Your task to perform on an android device: Go to location settings Image 0: 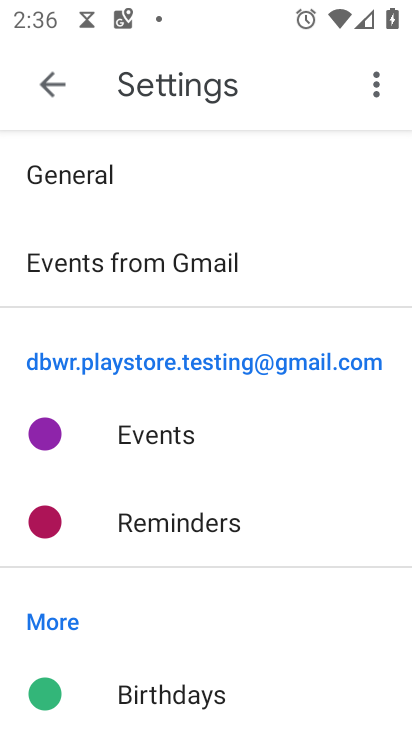
Step 0: press home button
Your task to perform on an android device: Go to location settings Image 1: 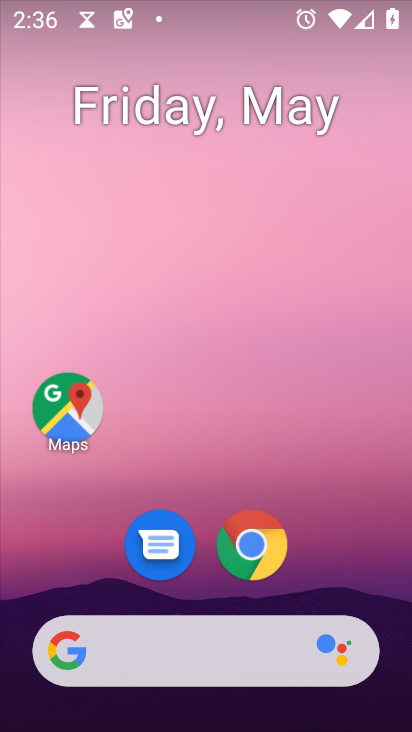
Step 1: drag from (345, 551) to (293, 135)
Your task to perform on an android device: Go to location settings Image 2: 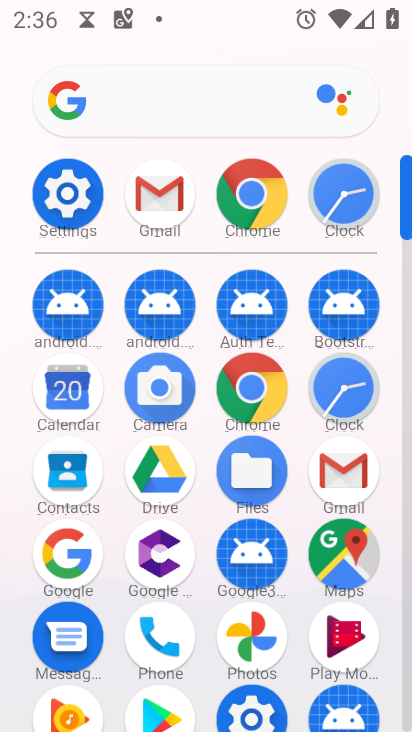
Step 2: click (58, 190)
Your task to perform on an android device: Go to location settings Image 3: 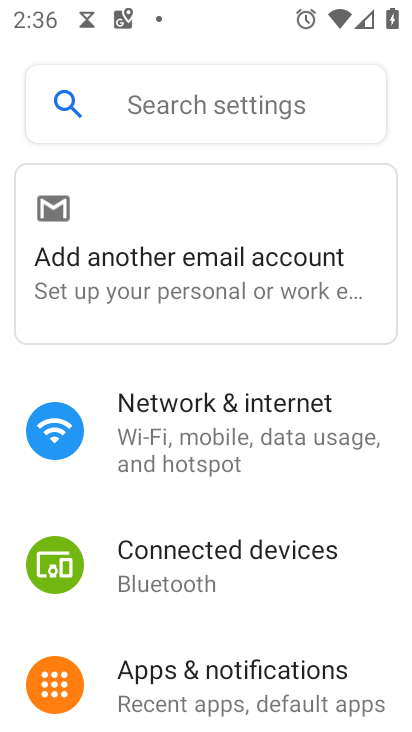
Step 3: drag from (299, 620) to (278, 322)
Your task to perform on an android device: Go to location settings Image 4: 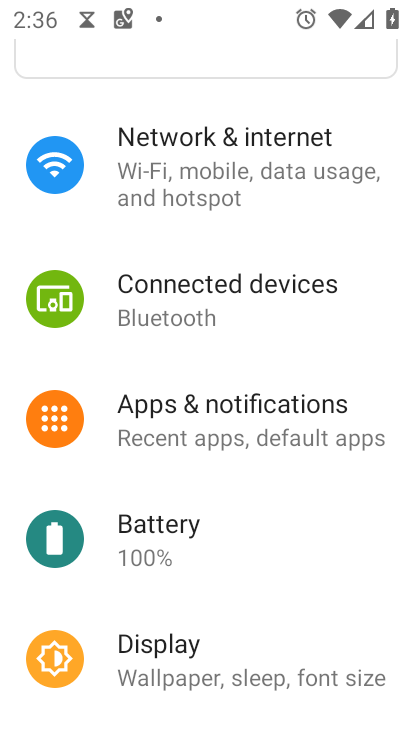
Step 4: drag from (280, 594) to (275, 284)
Your task to perform on an android device: Go to location settings Image 5: 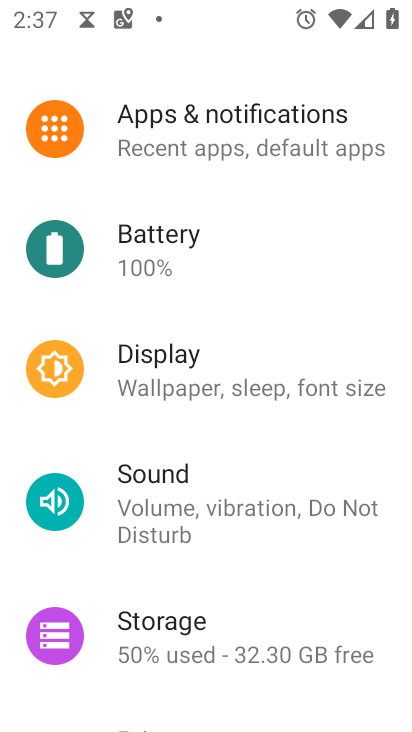
Step 5: drag from (298, 631) to (296, 396)
Your task to perform on an android device: Go to location settings Image 6: 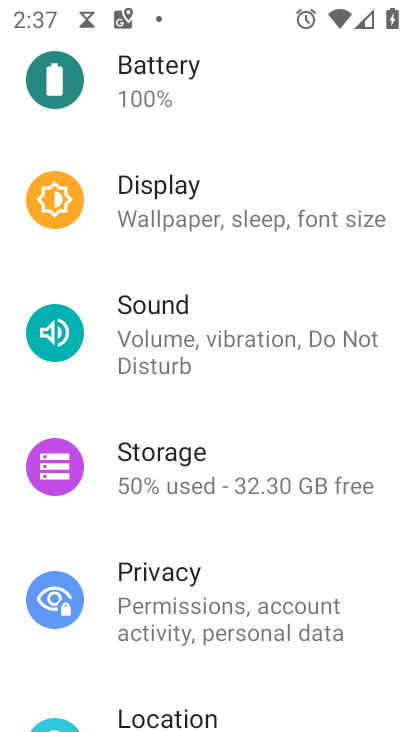
Step 6: drag from (283, 684) to (284, 405)
Your task to perform on an android device: Go to location settings Image 7: 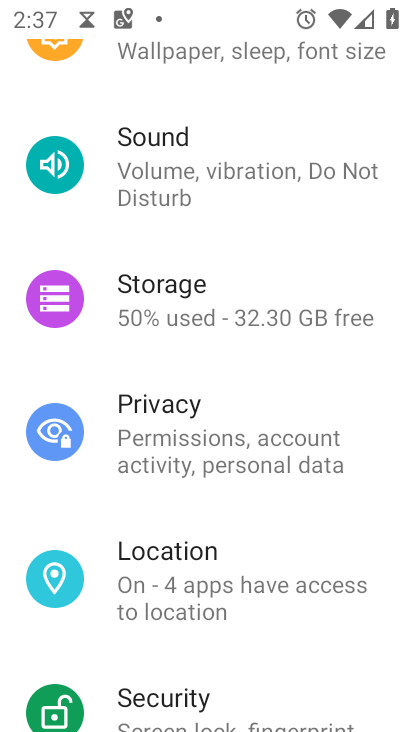
Step 7: click (214, 568)
Your task to perform on an android device: Go to location settings Image 8: 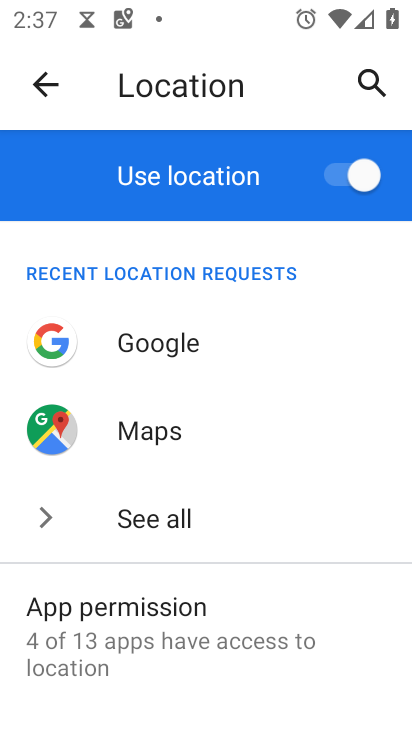
Step 8: task complete